Your task to perform on an android device: Show me popular games on the Play Store Image 0: 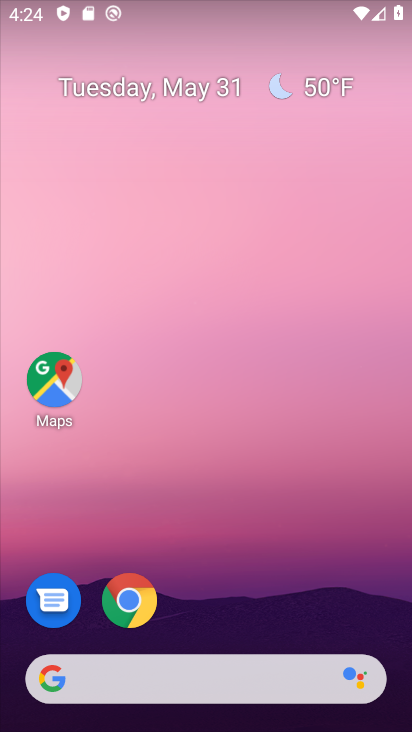
Step 0: drag from (258, 580) to (210, 12)
Your task to perform on an android device: Show me popular games on the Play Store Image 1: 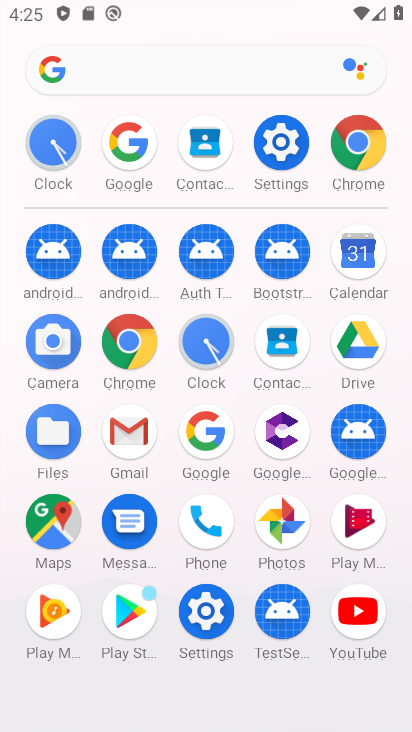
Step 1: click (131, 609)
Your task to perform on an android device: Show me popular games on the Play Store Image 2: 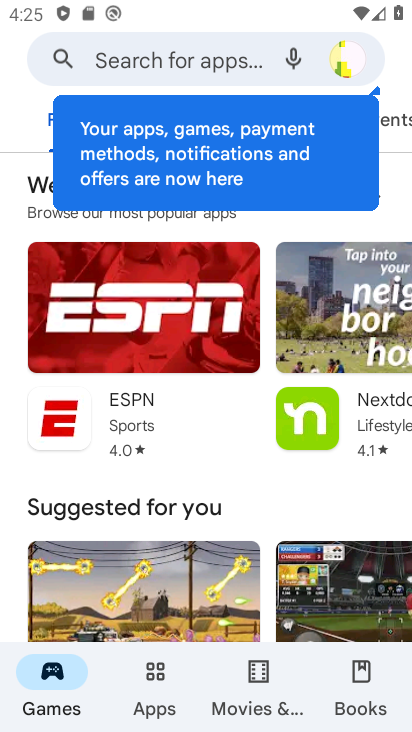
Step 2: click (190, 54)
Your task to perform on an android device: Show me popular games on the Play Store Image 3: 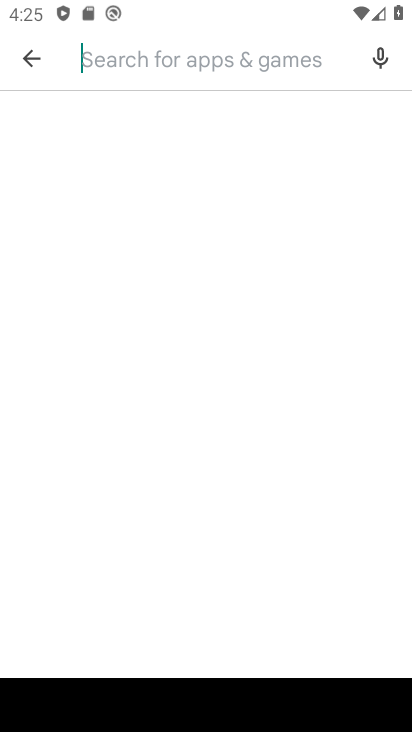
Step 3: type "popular games"
Your task to perform on an android device: Show me popular games on the Play Store Image 4: 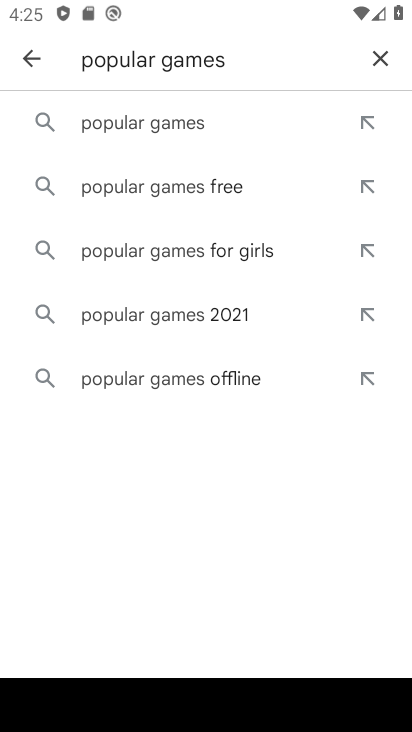
Step 4: click (165, 132)
Your task to perform on an android device: Show me popular games on the Play Store Image 5: 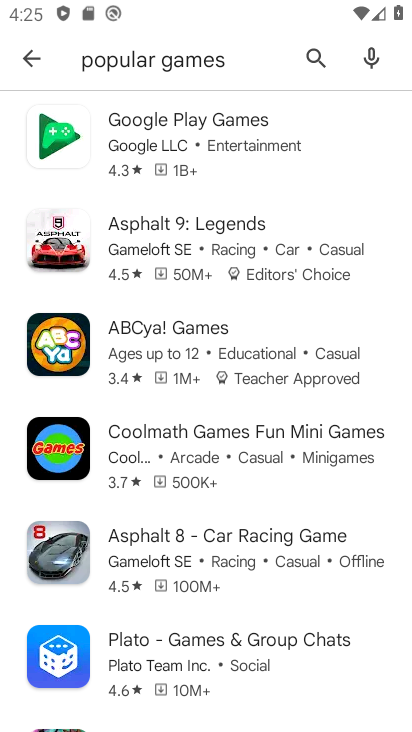
Step 5: task complete